Your task to perform on an android device: toggle sleep mode Image 0: 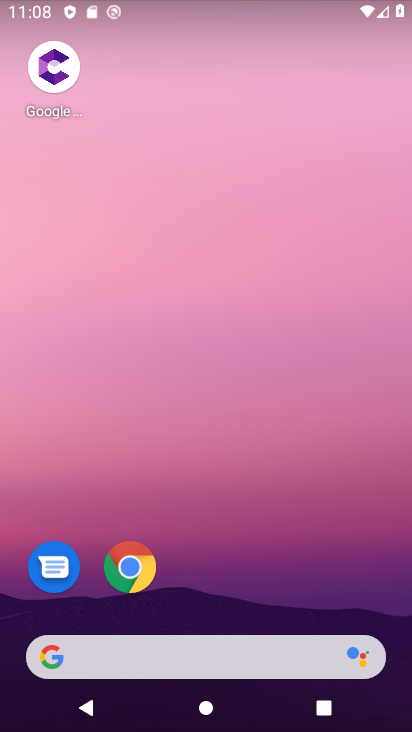
Step 0: drag from (357, 601) to (359, 89)
Your task to perform on an android device: toggle sleep mode Image 1: 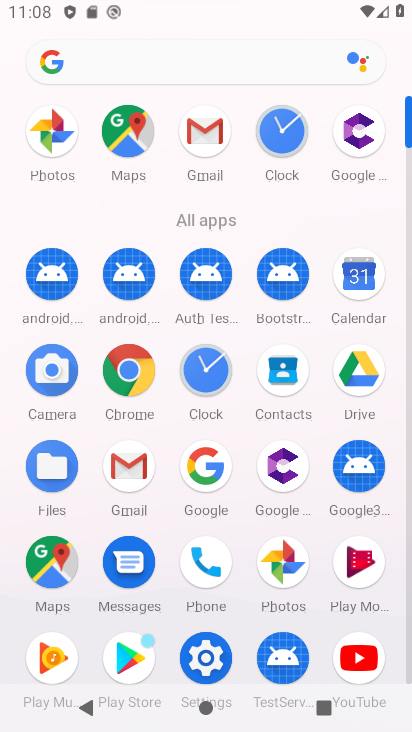
Step 1: drag from (233, 522) to (241, 373)
Your task to perform on an android device: toggle sleep mode Image 2: 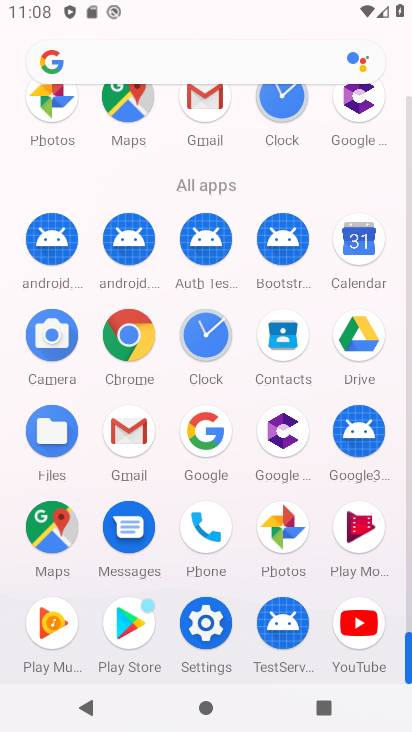
Step 2: drag from (248, 171) to (245, 379)
Your task to perform on an android device: toggle sleep mode Image 3: 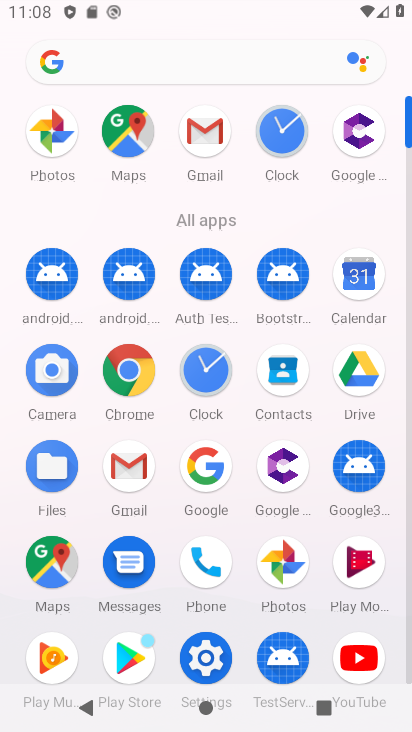
Step 3: drag from (245, 591) to (239, 384)
Your task to perform on an android device: toggle sleep mode Image 4: 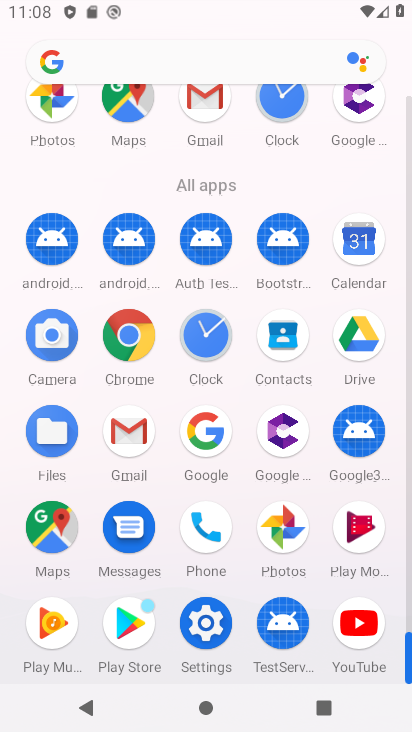
Step 4: click (209, 639)
Your task to perform on an android device: toggle sleep mode Image 5: 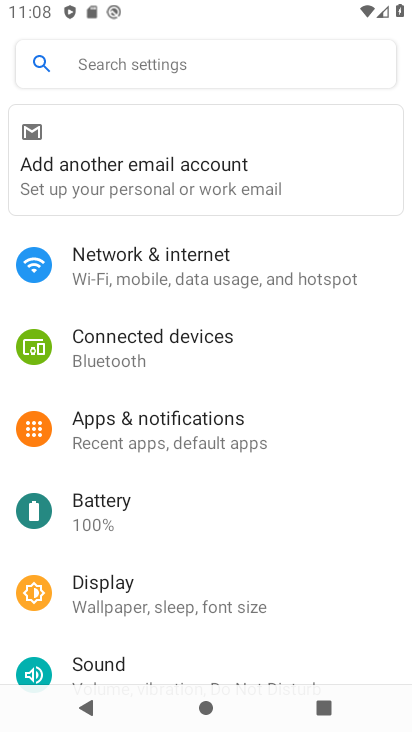
Step 5: drag from (349, 248) to (355, 484)
Your task to perform on an android device: toggle sleep mode Image 6: 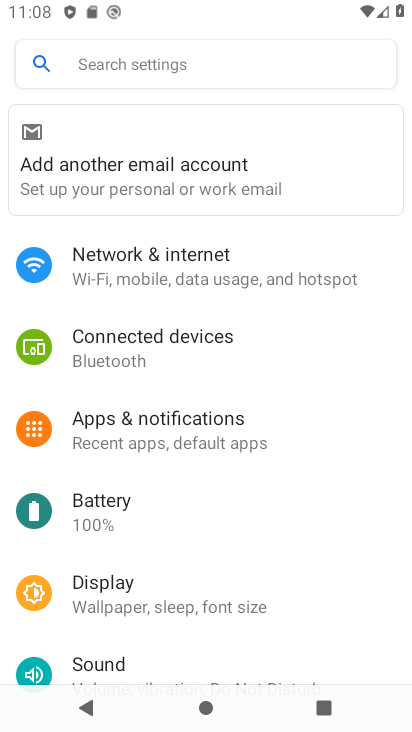
Step 6: drag from (365, 529) to (366, 264)
Your task to perform on an android device: toggle sleep mode Image 7: 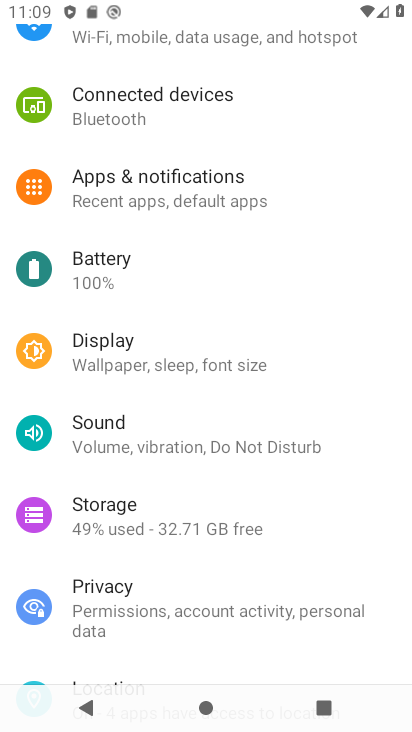
Step 7: drag from (380, 523) to (368, 331)
Your task to perform on an android device: toggle sleep mode Image 8: 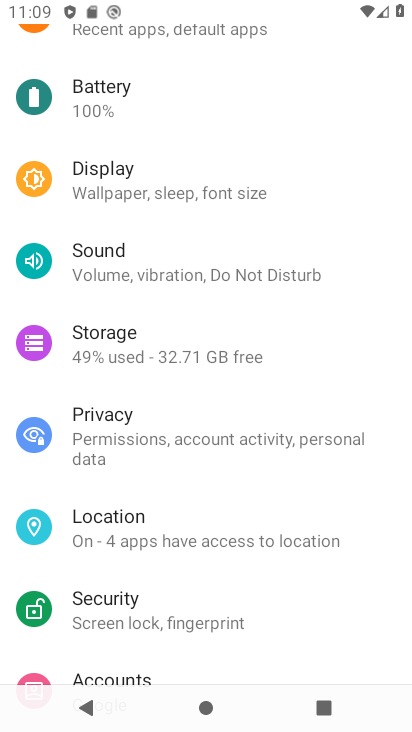
Step 8: drag from (364, 593) to (368, 343)
Your task to perform on an android device: toggle sleep mode Image 9: 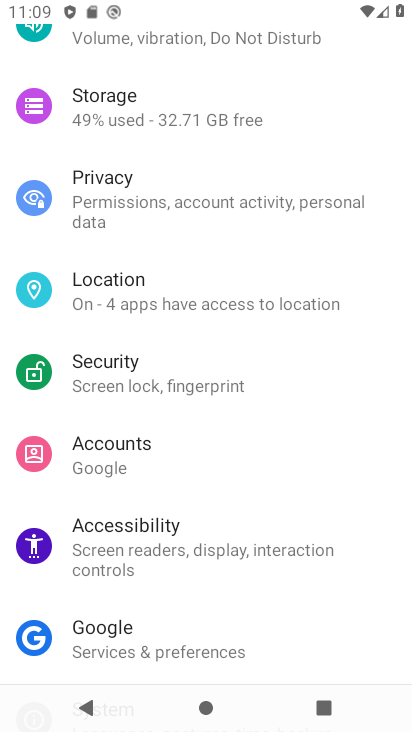
Step 9: drag from (361, 628) to (358, 366)
Your task to perform on an android device: toggle sleep mode Image 10: 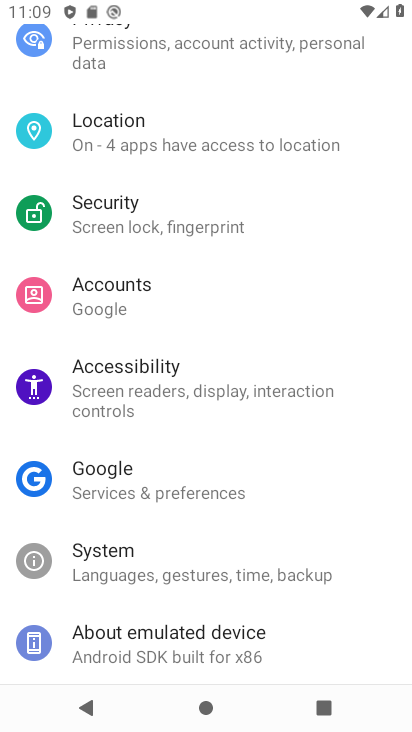
Step 10: drag from (370, 272) to (359, 468)
Your task to perform on an android device: toggle sleep mode Image 11: 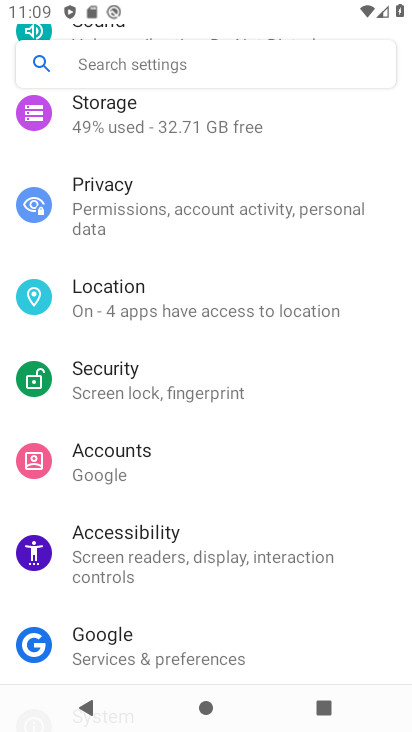
Step 11: drag from (352, 258) to (352, 424)
Your task to perform on an android device: toggle sleep mode Image 12: 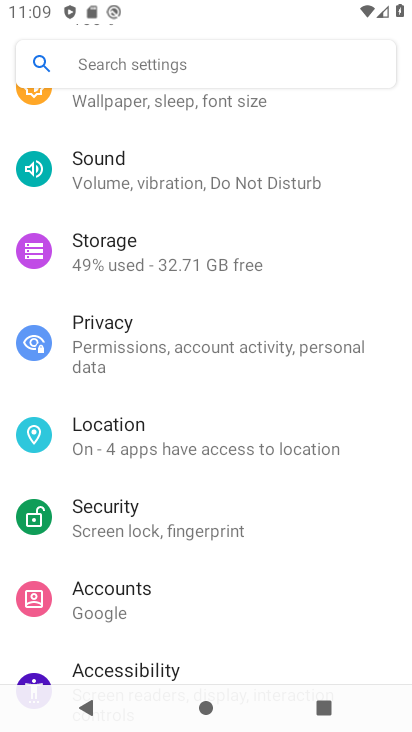
Step 12: drag from (364, 225) to (357, 449)
Your task to perform on an android device: toggle sleep mode Image 13: 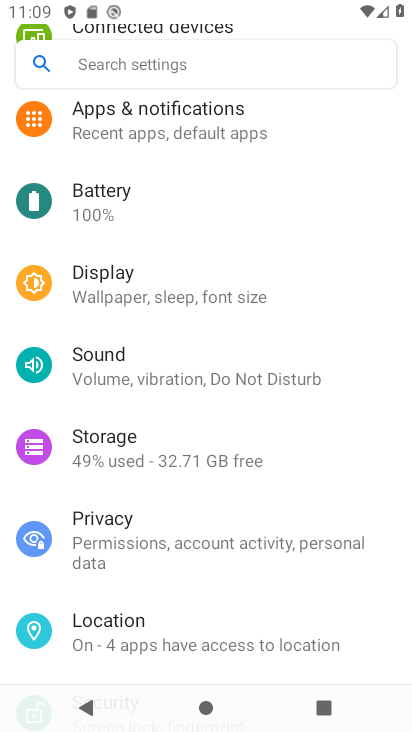
Step 13: drag from (341, 203) to (356, 411)
Your task to perform on an android device: toggle sleep mode Image 14: 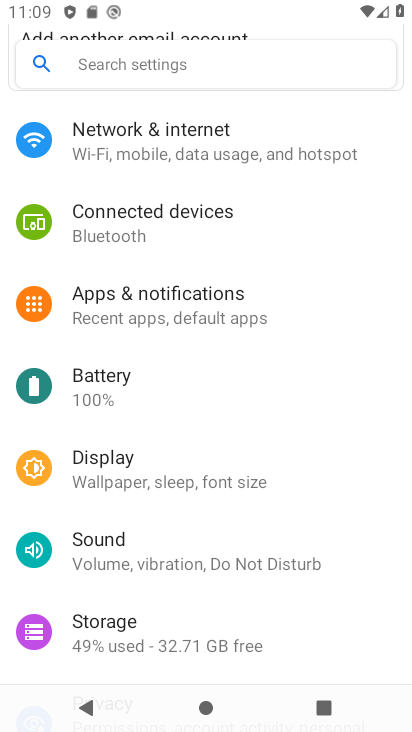
Step 14: click (238, 481)
Your task to perform on an android device: toggle sleep mode Image 15: 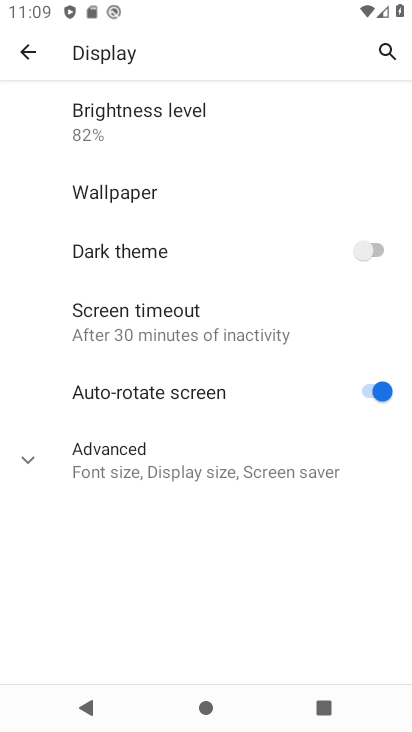
Step 15: click (234, 470)
Your task to perform on an android device: toggle sleep mode Image 16: 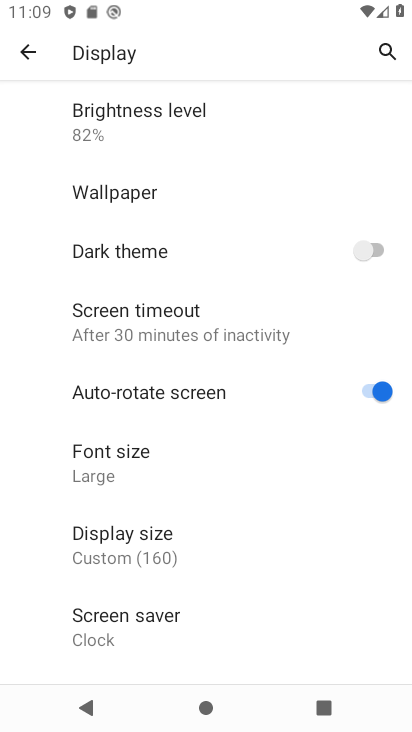
Step 16: task complete